Your task to perform on an android device: Open Wikipedia Image 0: 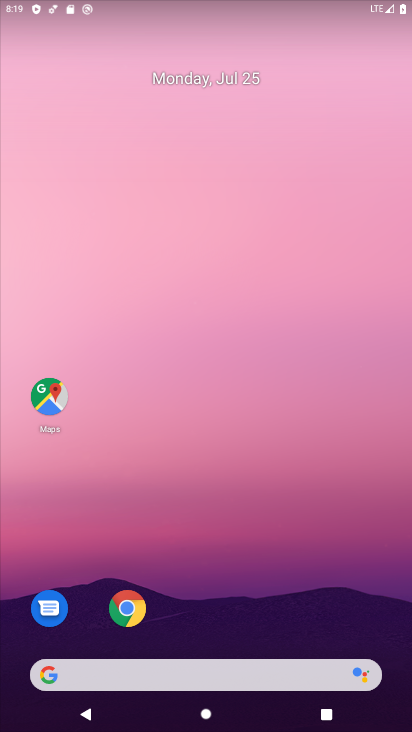
Step 0: drag from (241, 725) to (242, 158)
Your task to perform on an android device: Open Wikipedia Image 1: 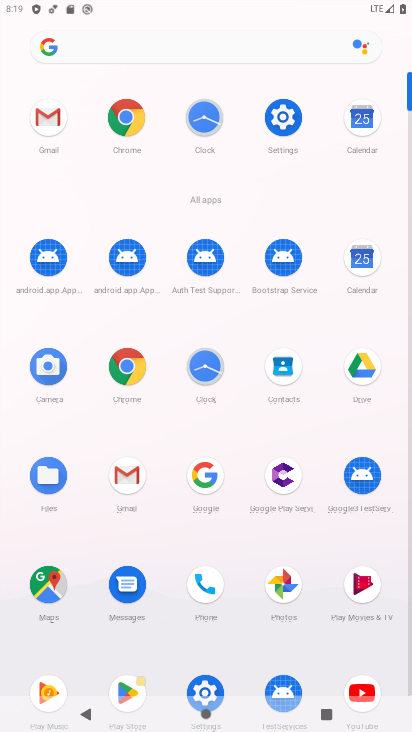
Step 1: click (120, 122)
Your task to perform on an android device: Open Wikipedia Image 2: 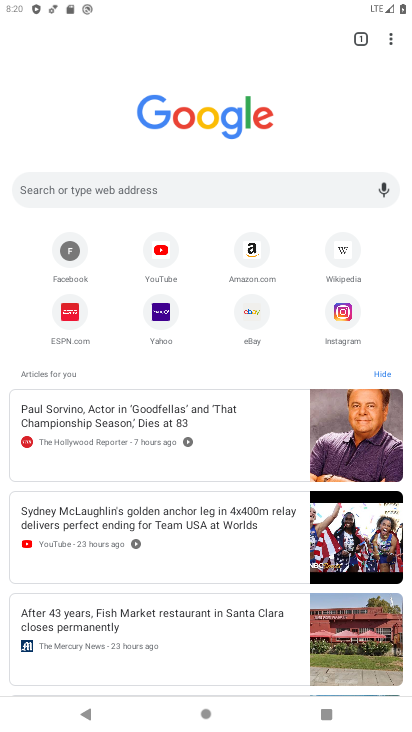
Step 2: click (340, 248)
Your task to perform on an android device: Open Wikipedia Image 3: 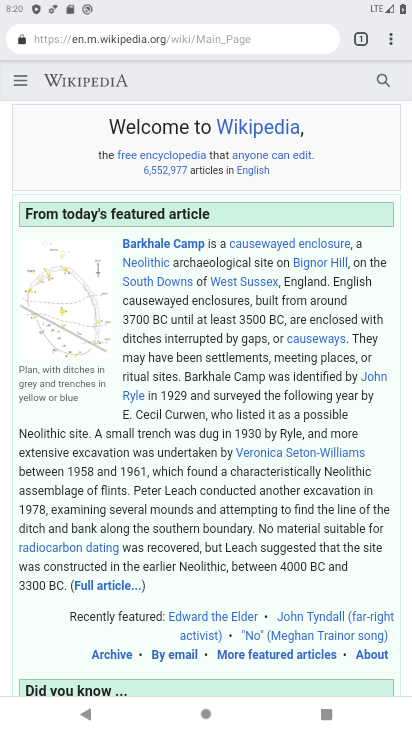
Step 3: task complete